Your task to perform on an android device: turn on data saver in the chrome app Image 0: 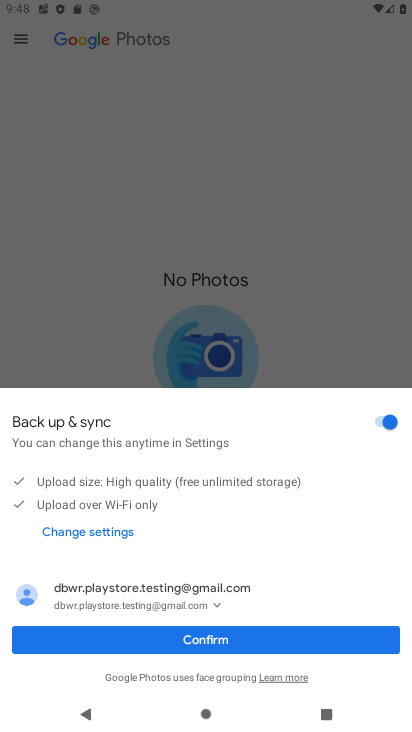
Step 0: press home button
Your task to perform on an android device: turn on data saver in the chrome app Image 1: 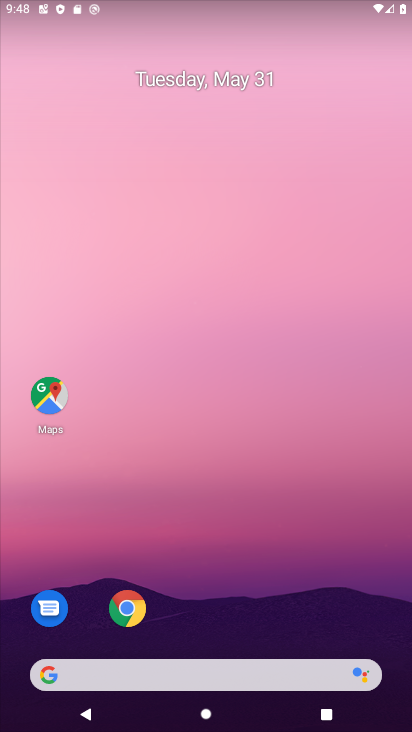
Step 1: click (145, 605)
Your task to perform on an android device: turn on data saver in the chrome app Image 2: 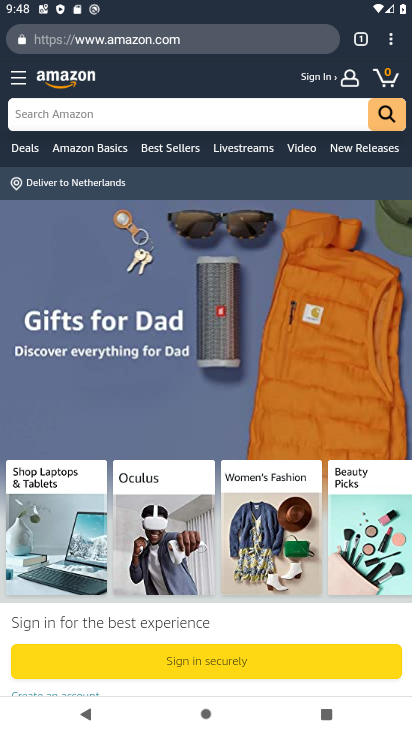
Step 2: drag from (388, 42) to (243, 502)
Your task to perform on an android device: turn on data saver in the chrome app Image 3: 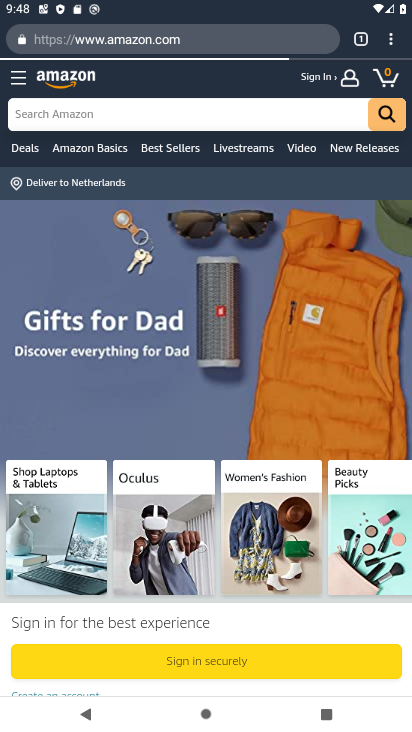
Step 3: drag from (400, 46) to (246, 519)
Your task to perform on an android device: turn on data saver in the chrome app Image 4: 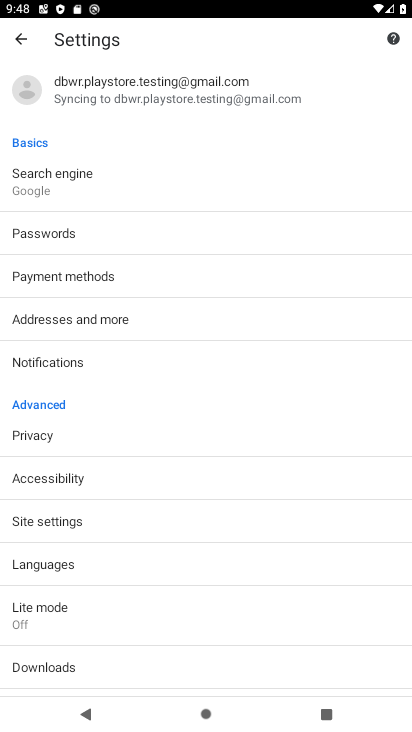
Step 4: click (14, 620)
Your task to perform on an android device: turn on data saver in the chrome app Image 5: 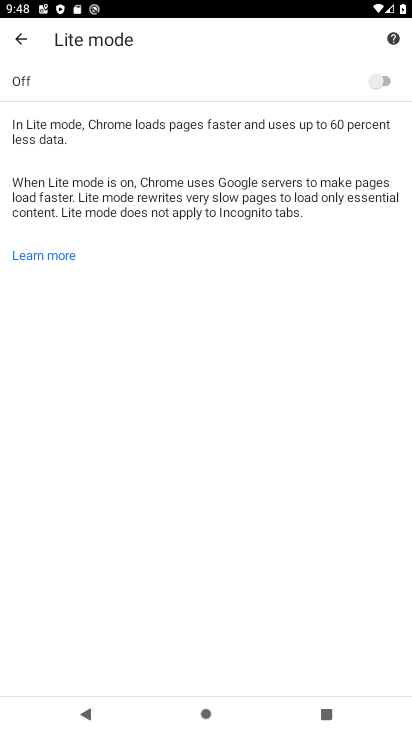
Step 5: click (374, 83)
Your task to perform on an android device: turn on data saver in the chrome app Image 6: 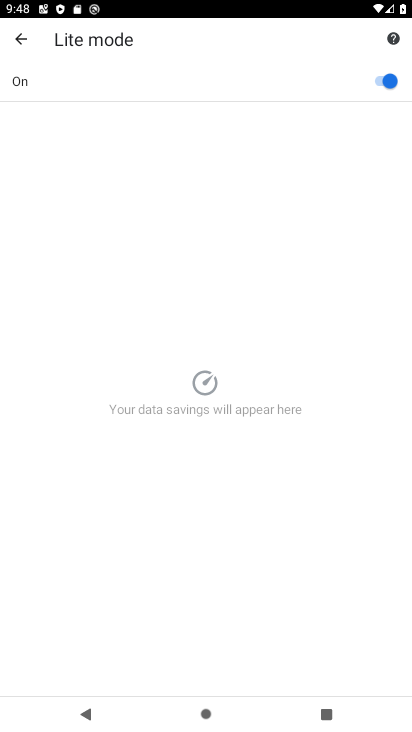
Step 6: task complete